Your task to perform on an android device: open app "eBay: The shopping marketplace" (install if not already installed) and enter user name: "articulated@icloud.com" and password: "excluding" Image 0: 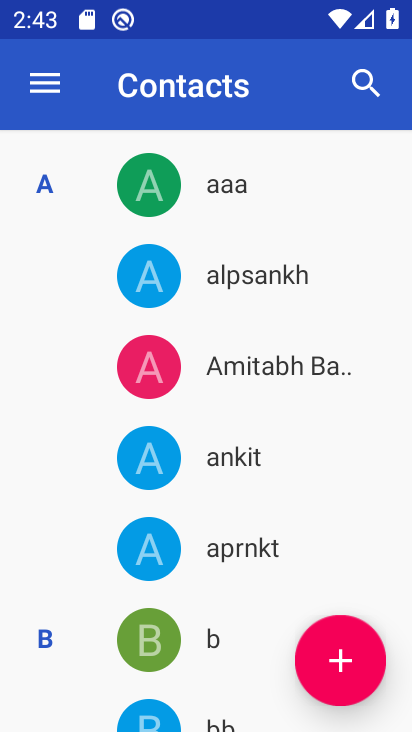
Step 0: press home button
Your task to perform on an android device: open app "eBay: The shopping marketplace" (install if not already installed) and enter user name: "articulated@icloud.com" and password: "excluding" Image 1: 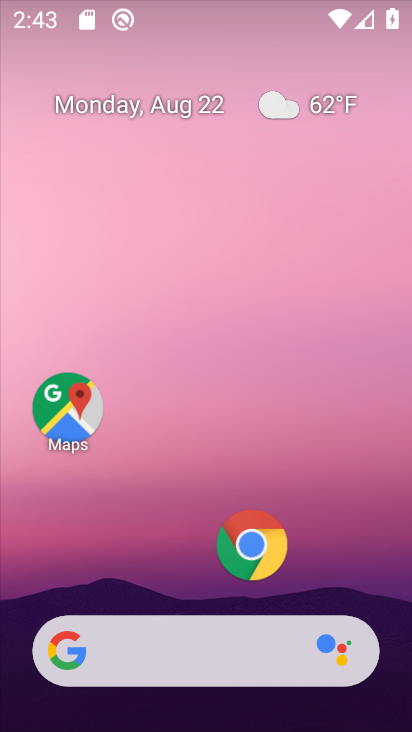
Step 1: drag from (145, 599) to (281, 5)
Your task to perform on an android device: open app "eBay: The shopping marketplace" (install if not already installed) and enter user name: "articulated@icloud.com" and password: "excluding" Image 2: 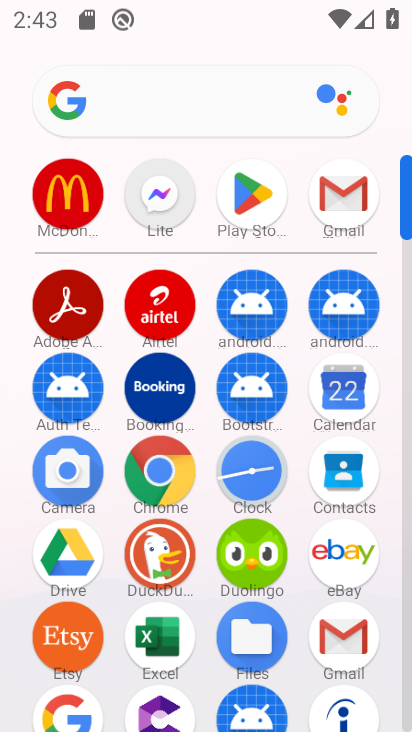
Step 2: click (244, 198)
Your task to perform on an android device: open app "eBay: The shopping marketplace" (install if not already installed) and enter user name: "articulated@icloud.com" and password: "excluding" Image 3: 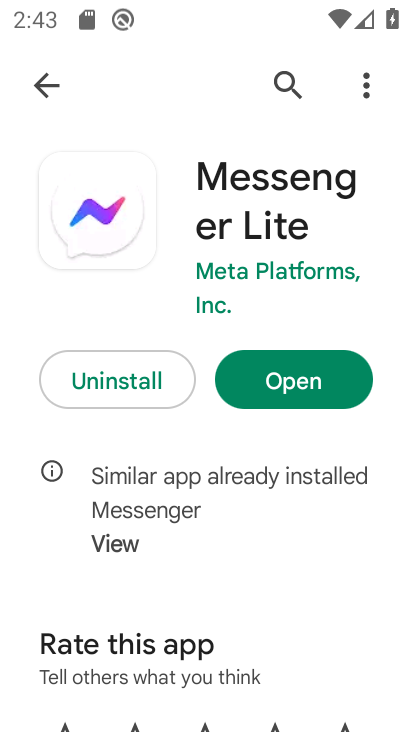
Step 3: click (299, 68)
Your task to perform on an android device: open app "eBay: The shopping marketplace" (install if not already installed) and enter user name: "articulated@icloud.com" and password: "excluding" Image 4: 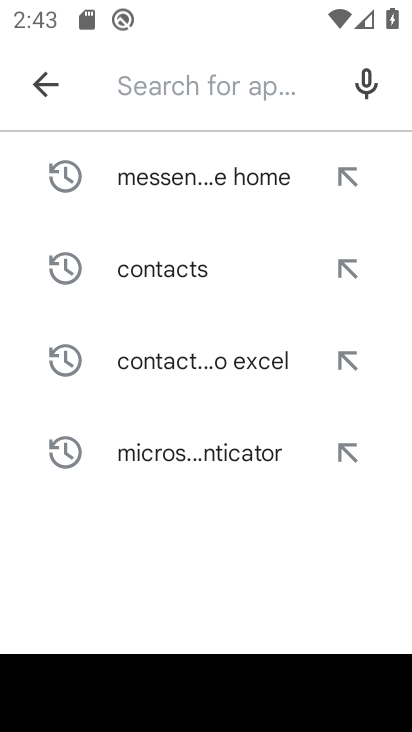
Step 4: type "ebay"
Your task to perform on an android device: open app "eBay: The shopping marketplace" (install if not already installed) and enter user name: "articulated@icloud.com" and password: "excluding" Image 5: 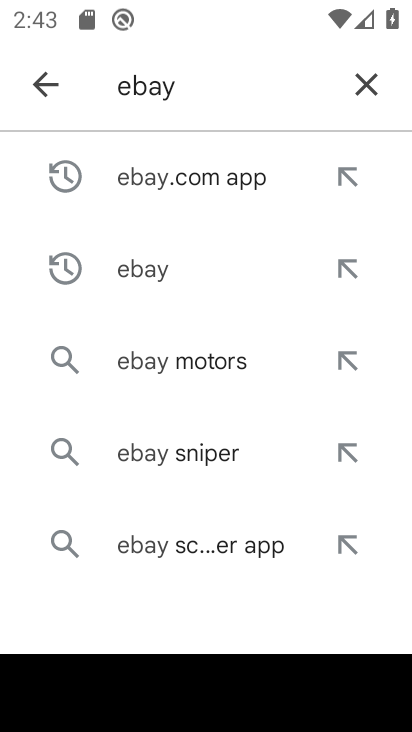
Step 5: click (140, 250)
Your task to perform on an android device: open app "eBay: The shopping marketplace" (install if not already installed) and enter user name: "articulated@icloud.com" and password: "excluding" Image 6: 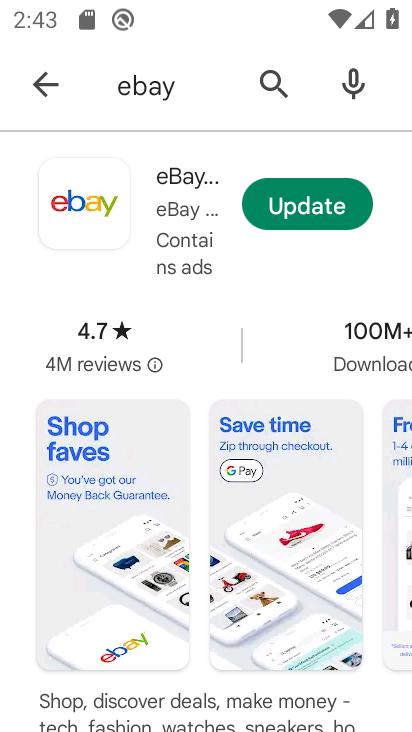
Step 6: click (170, 229)
Your task to perform on an android device: open app "eBay: The shopping marketplace" (install if not already installed) and enter user name: "articulated@icloud.com" and password: "excluding" Image 7: 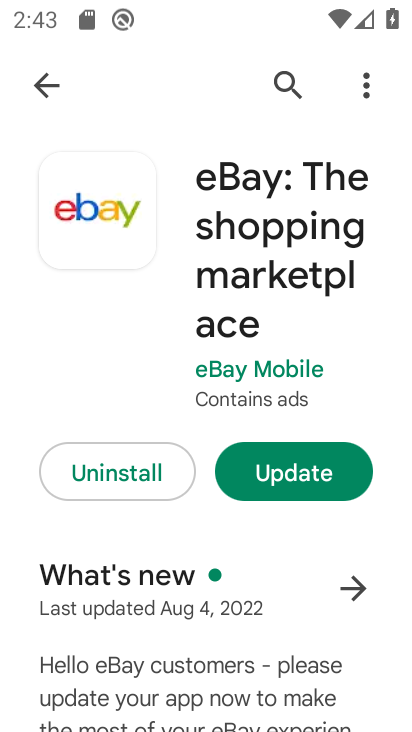
Step 7: task complete